Your task to perform on an android device: make emails show in primary in the gmail app Image 0: 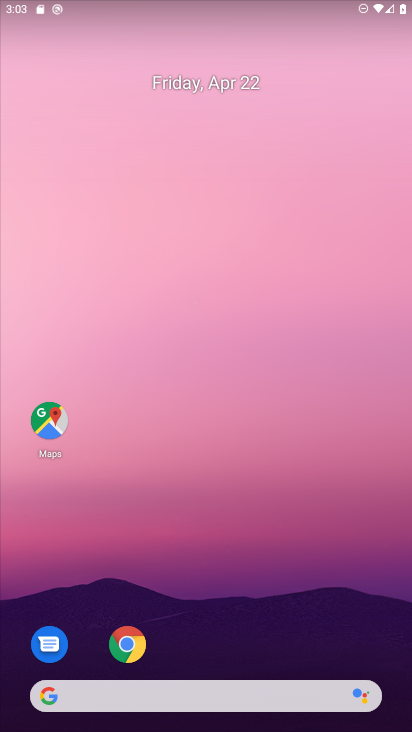
Step 0: drag from (312, 674) to (279, 192)
Your task to perform on an android device: make emails show in primary in the gmail app Image 1: 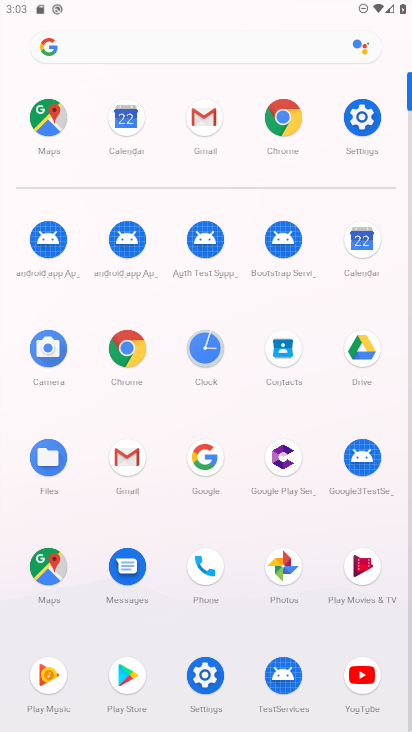
Step 1: click (130, 458)
Your task to perform on an android device: make emails show in primary in the gmail app Image 2: 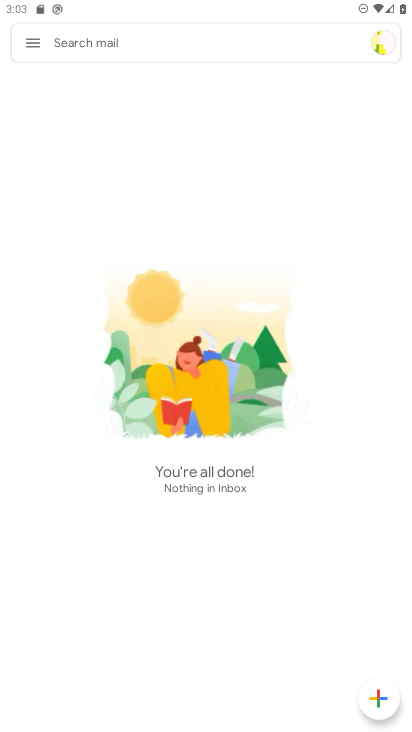
Step 2: click (35, 49)
Your task to perform on an android device: make emails show in primary in the gmail app Image 3: 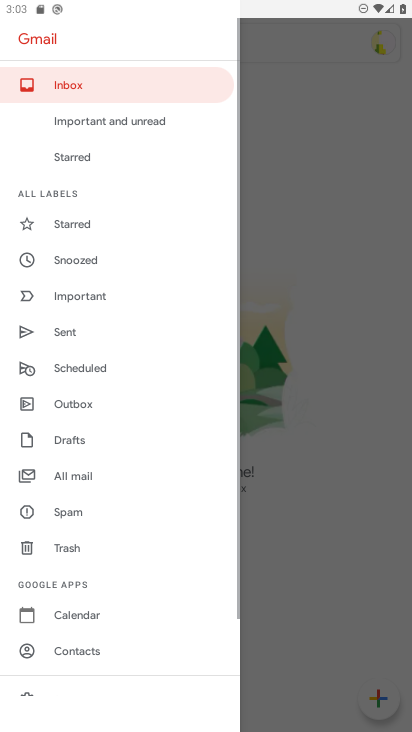
Step 3: drag from (139, 558) to (160, 236)
Your task to perform on an android device: make emails show in primary in the gmail app Image 4: 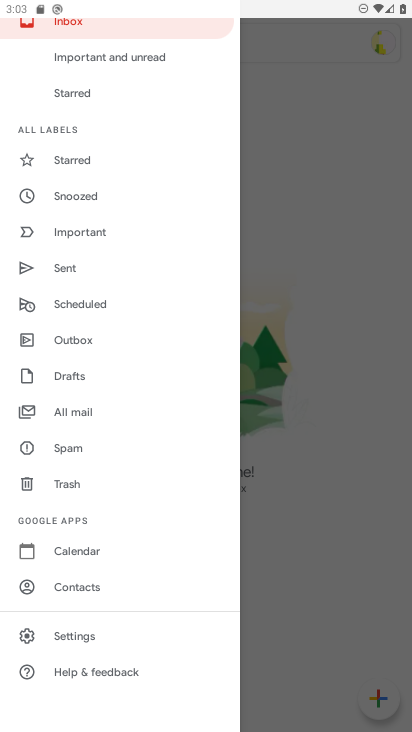
Step 4: click (84, 644)
Your task to perform on an android device: make emails show in primary in the gmail app Image 5: 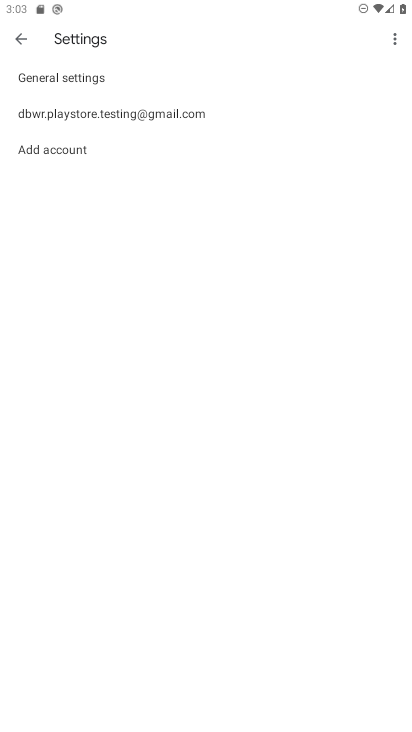
Step 5: click (103, 113)
Your task to perform on an android device: make emails show in primary in the gmail app Image 6: 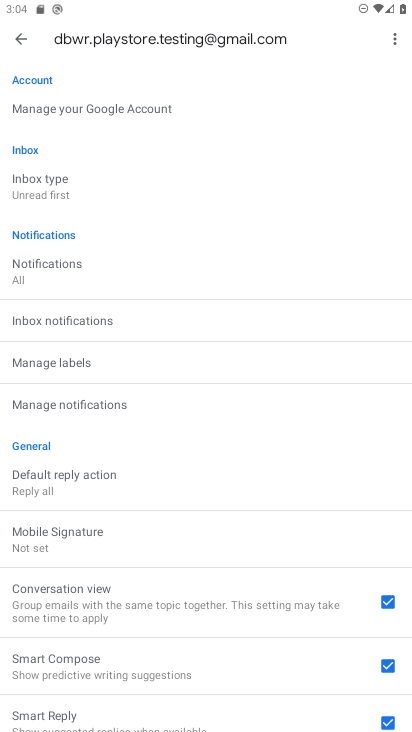
Step 6: click (81, 402)
Your task to perform on an android device: make emails show in primary in the gmail app Image 7: 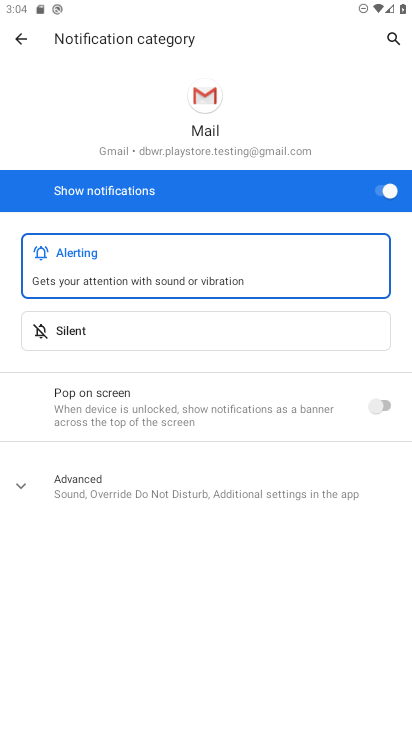
Step 7: drag from (394, 185) to (384, 466)
Your task to perform on an android device: make emails show in primary in the gmail app Image 8: 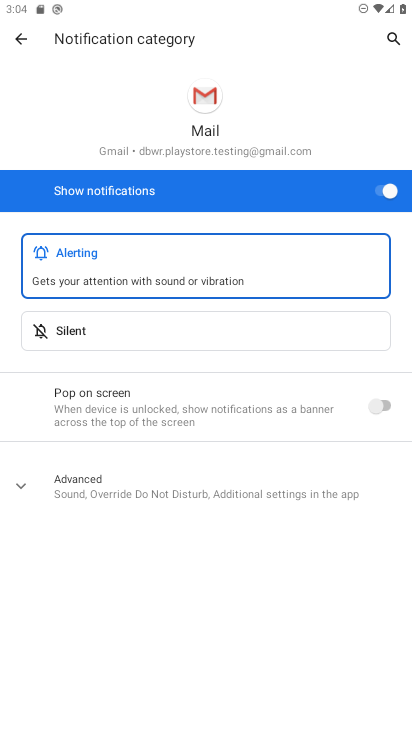
Step 8: click (19, 36)
Your task to perform on an android device: make emails show in primary in the gmail app Image 9: 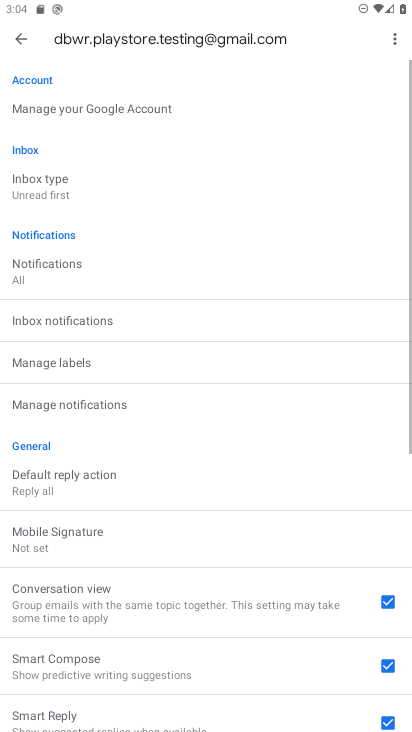
Step 9: drag from (105, 181) to (181, 535)
Your task to perform on an android device: make emails show in primary in the gmail app Image 10: 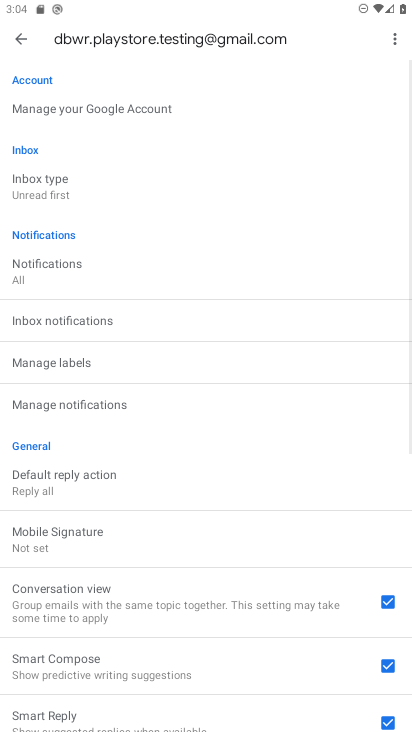
Step 10: click (46, 191)
Your task to perform on an android device: make emails show in primary in the gmail app Image 11: 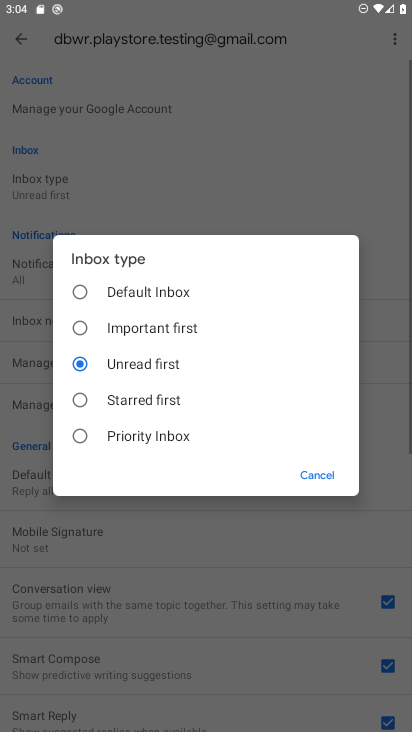
Step 11: click (131, 278)
Your task to perform on an android device: make emails show in primary in the gmail app Image 12: 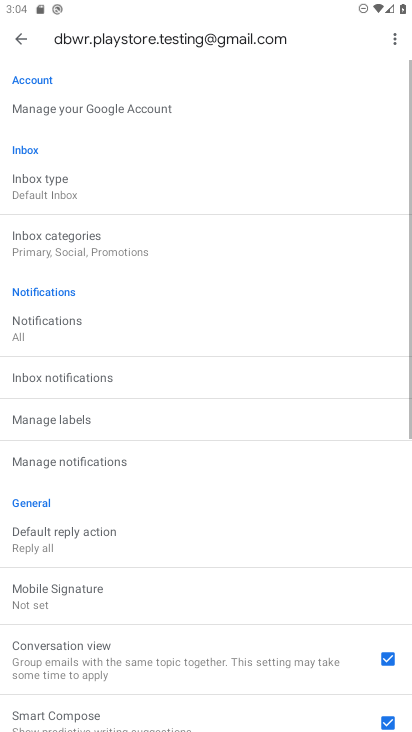
Step 12: click (101, 249)
Your task to perform on an android device: make emails show in primary in the gmail app Image 13: 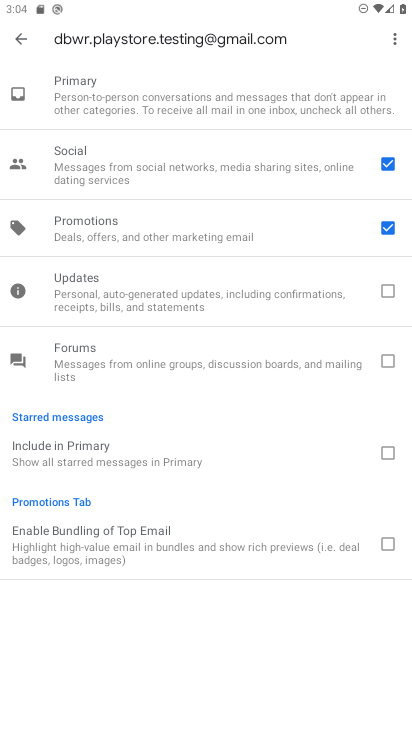
Step 13: task complete